Your task to perform on an android device: Open my contact list Image 0: 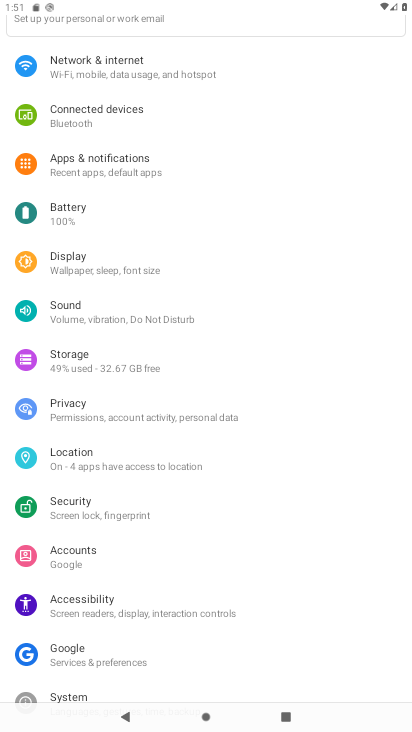
Step 0: press home button
Your task to perform on an android device: Open my contact list Image 1: 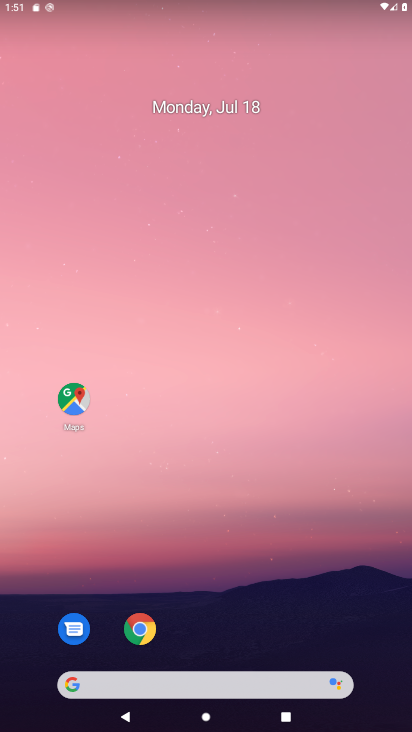
Step 1: drag from (212, 597) to (227, 157)
Your task to perform on an android device: Open my contact list Image 2: 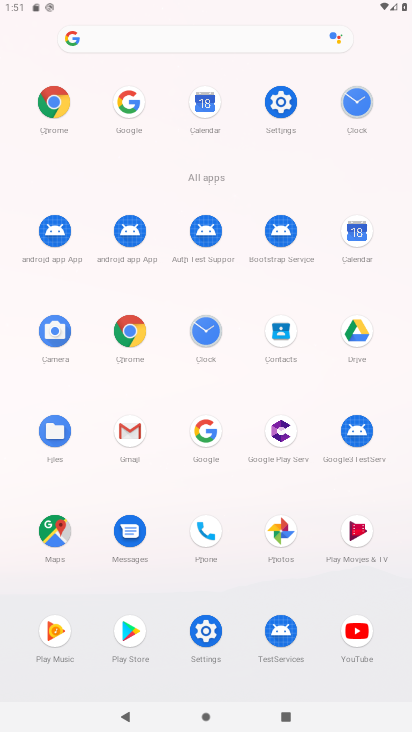
Step 2: click (277, 345)
Your task to perform on an android device: Open my contact list Image 3: 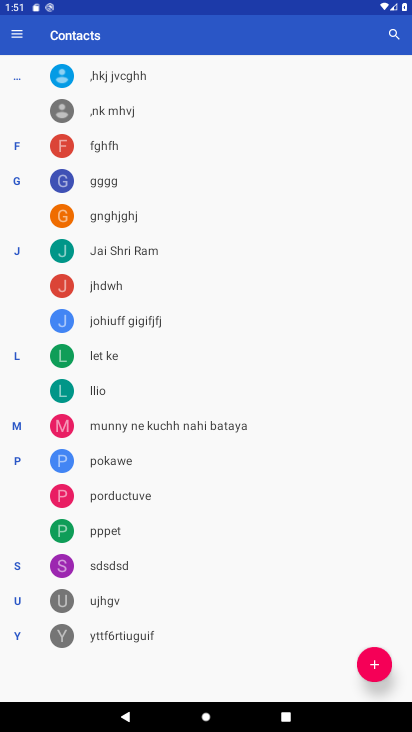
Step 3: task complete